Your task to perform on an android device: open a bookmark in the chrome app Image 0: 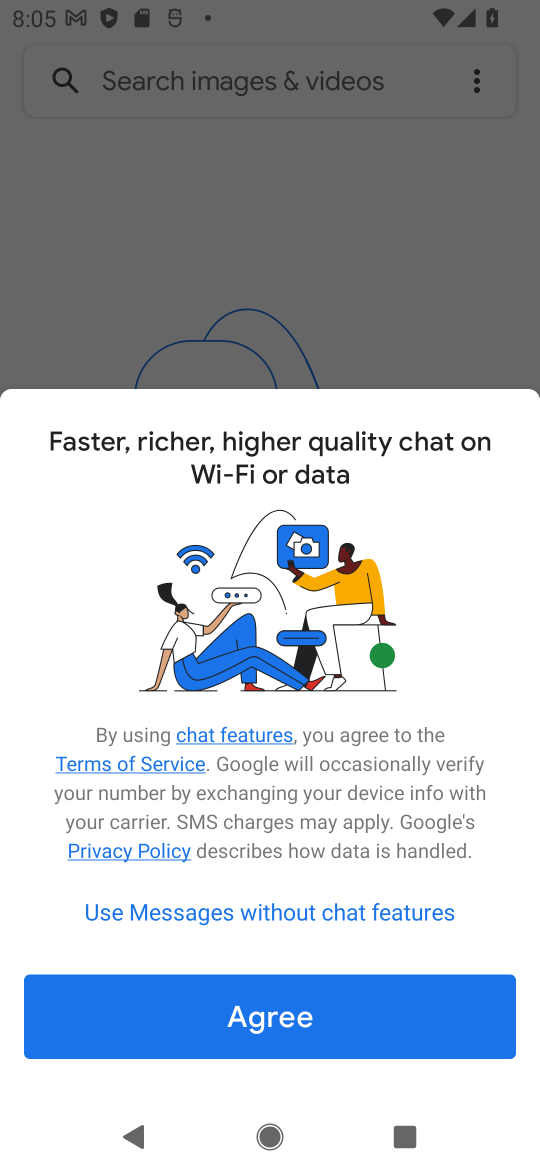
Step 0: press home button
Your task to perform on an android device: open a bookmark in the chrome app Image 1: 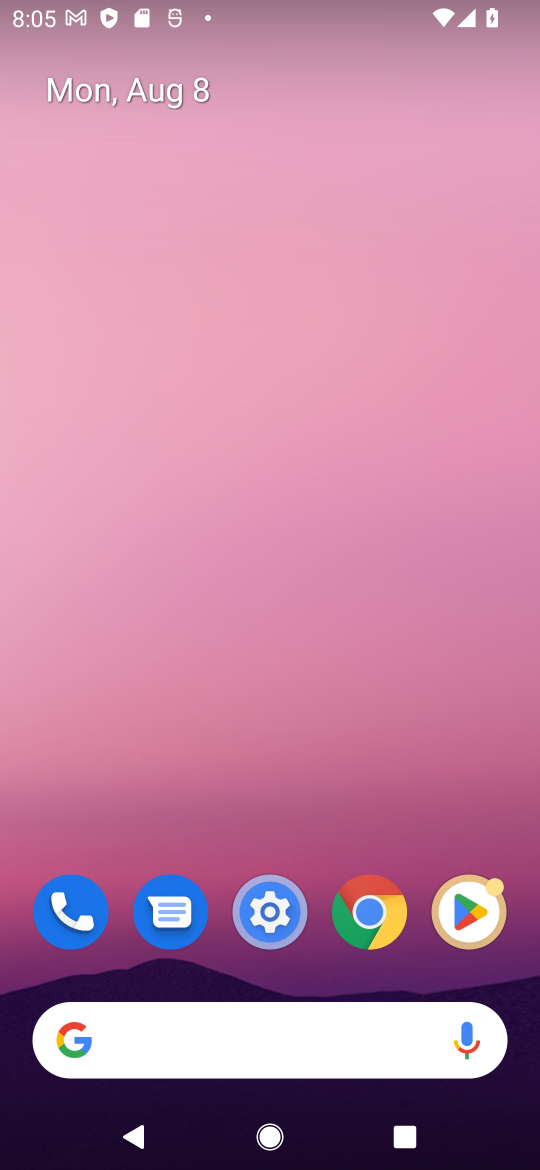
Step 1: drag from (435, 812) to (258, 15)
Your task to perform on an android device: open a bookmark in the chrome app Image 2: 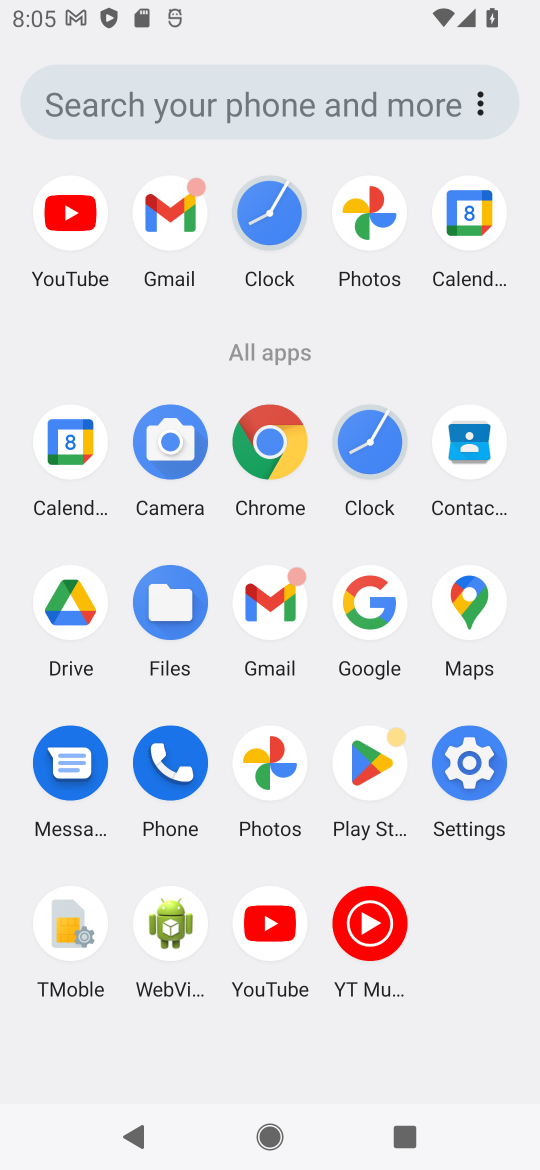
Step 2: click (272, 428)
Your task to perform on an android device: open a bookmark in the chrome app Image 3: 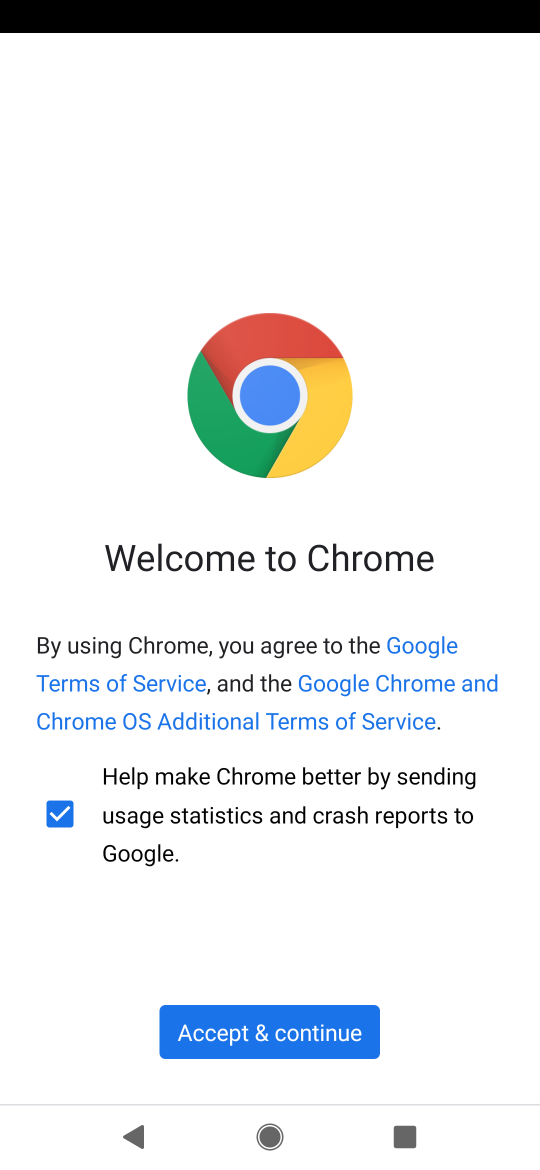
Step 3: click (281, 1029)
Your task to perform on an android device: open a bookmark in the chrome app Image 4: 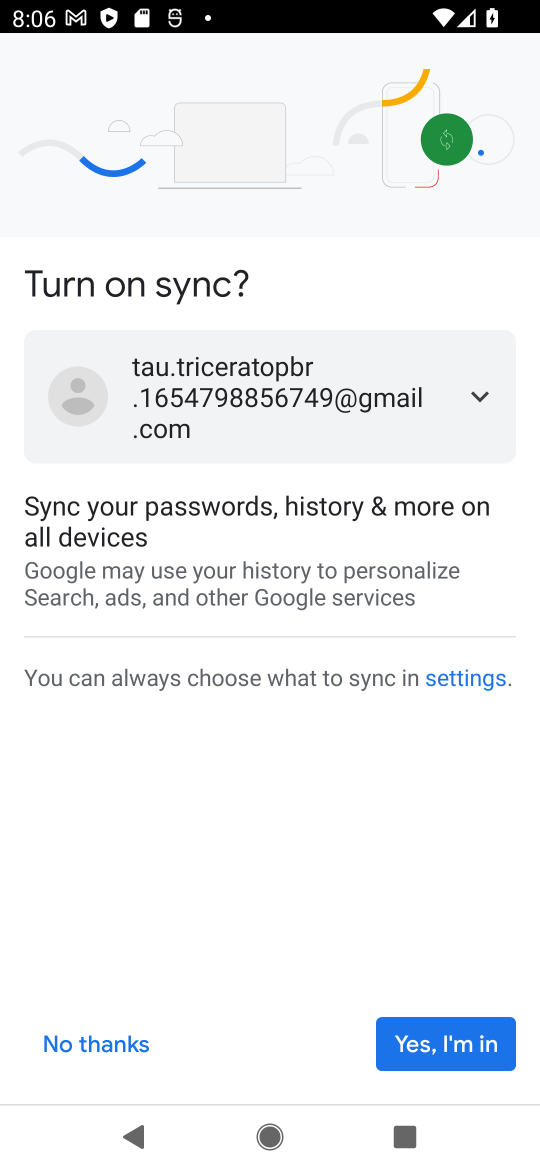
Step 4: click (421, 1034)
Your task to perform on an android device: open a bookmark in the chrome app Image 5: 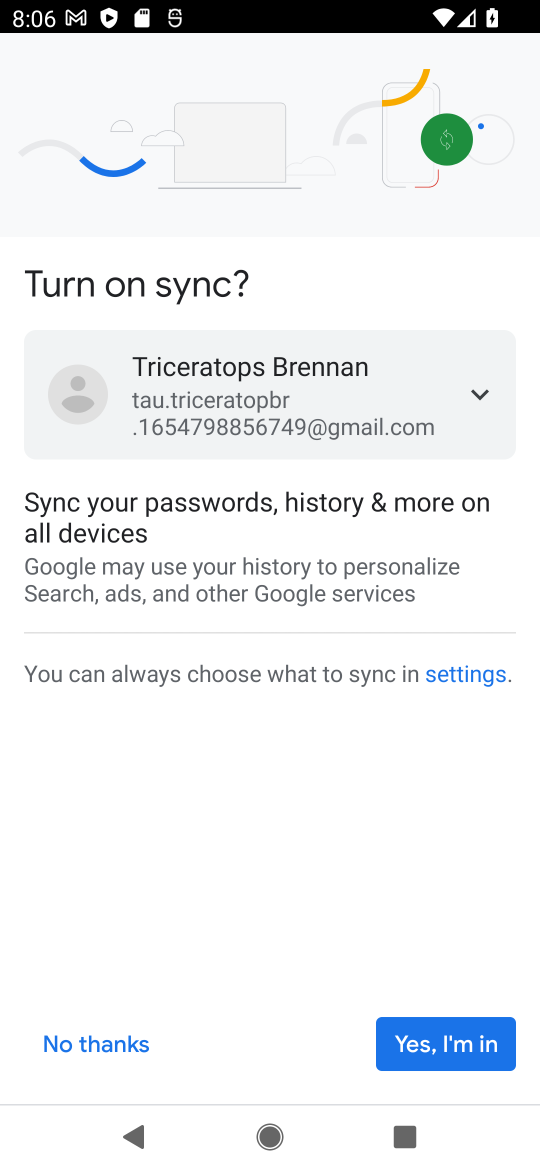
Step 5: click (441, 1047)
Your task to perform on an android device: open a bookmark in the chrome app Image 6: 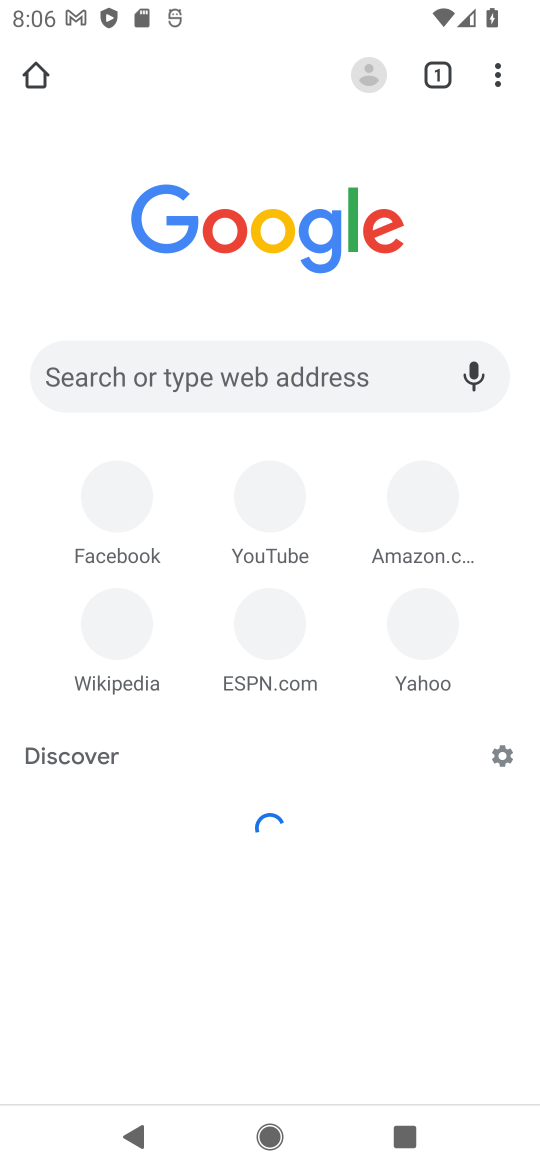
Step 6: click (241, 384)
Your task to perform on an android device: open a bookmark in the chrome app Image 7: 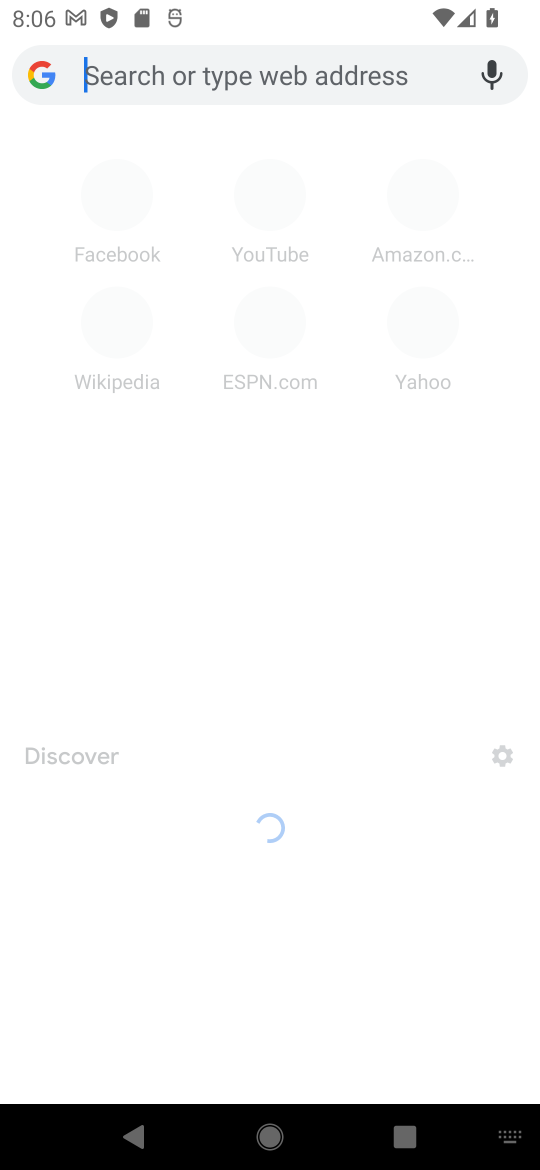
Step 7: press back button
Your task to perform on an android device: open a bookmark in the chrome app Image 8: 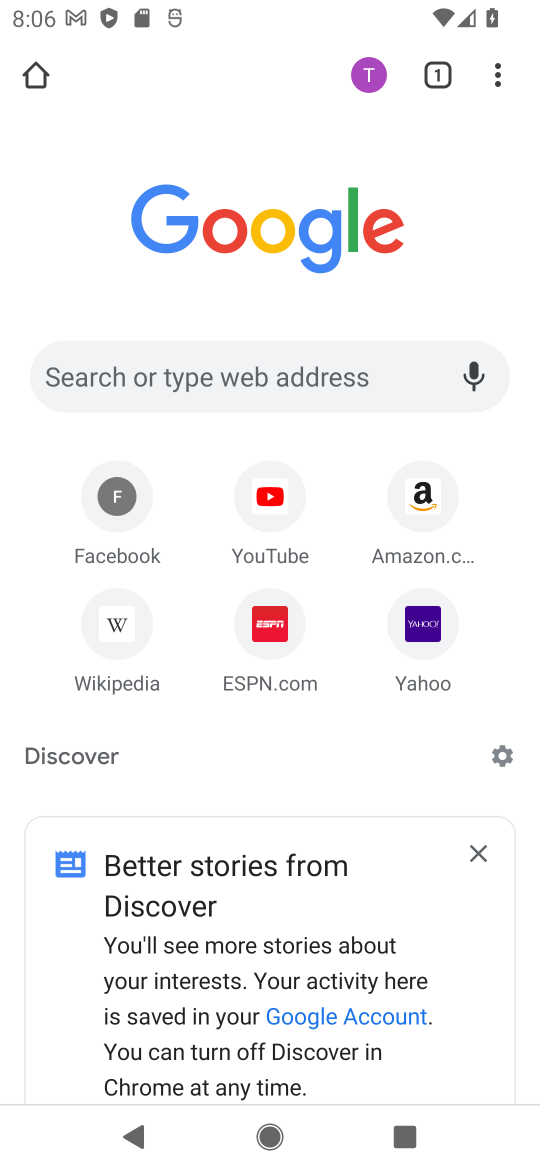
Step 8: click (496, 67)
Your task to perform on an android device: open a bookmark in the chrome app Image 9: 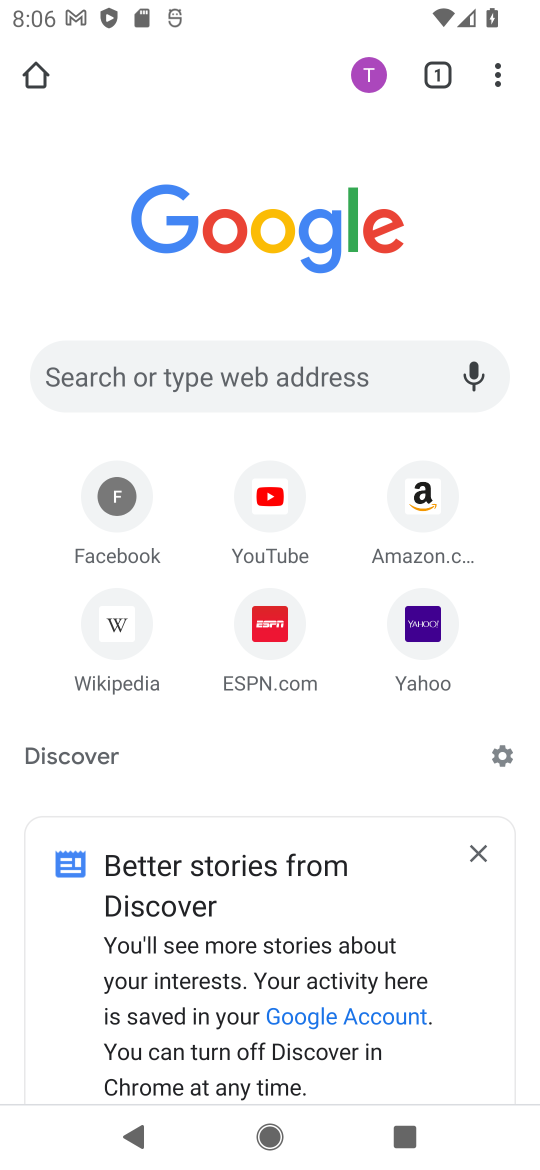
Step 9: click (493, 72)
Your task to perform on an android device: open a bookmark in the chrome app Image 10: 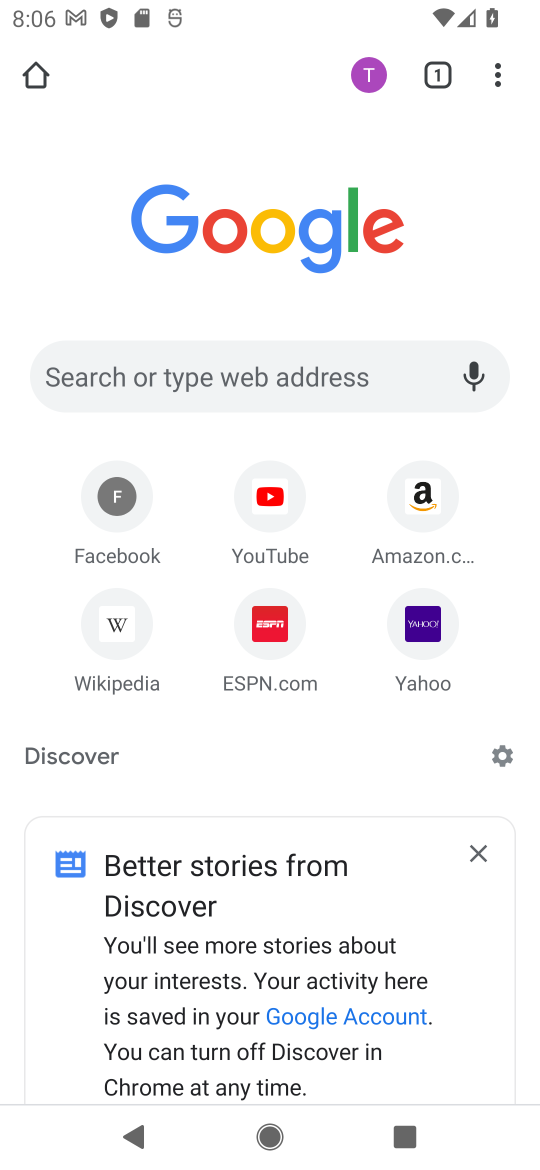
Step 10: click (493, 72)
Your task to perform on an android device: open a bookmark in the chrome app Image 11: 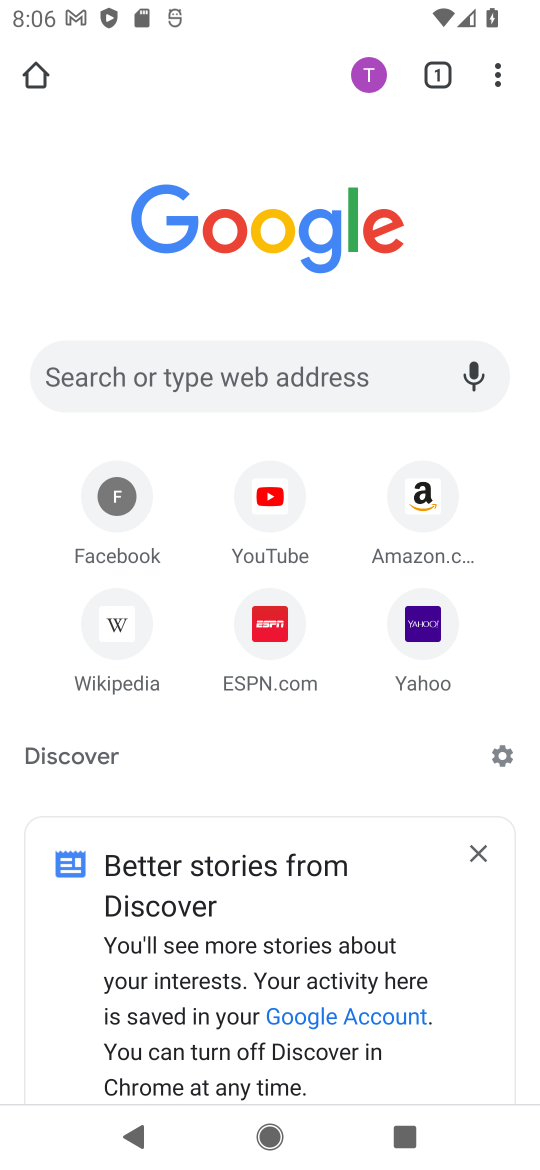
Step 11: click (504, 69)
Your task to perform on an android device: open a bookmark in the chrome app Image 12: 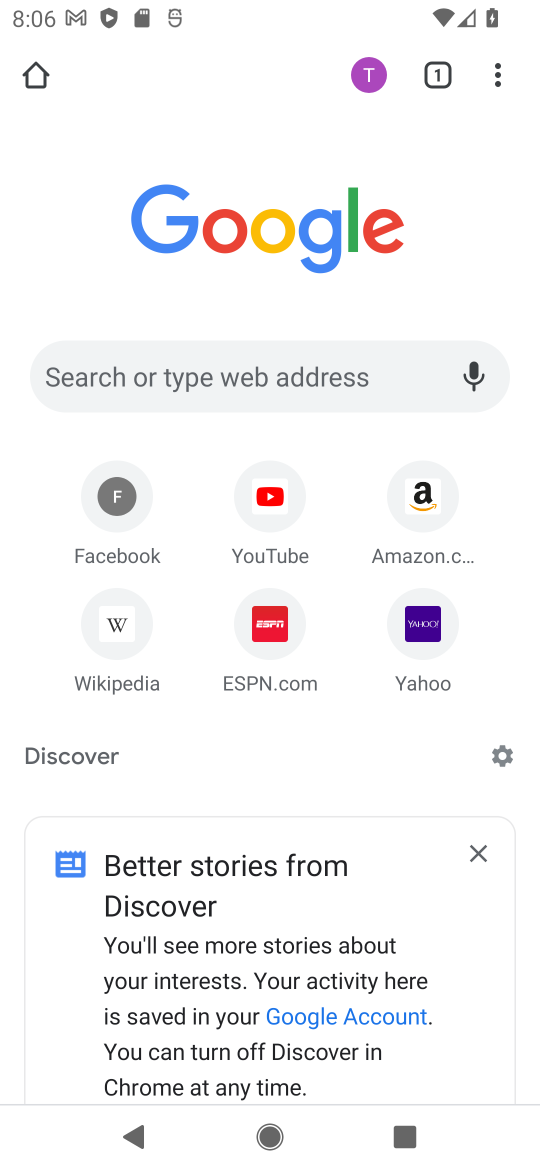
Step 12: click (504, 69)
Your task to perform on an android device: open a bookmark in the chrome app Image 13: 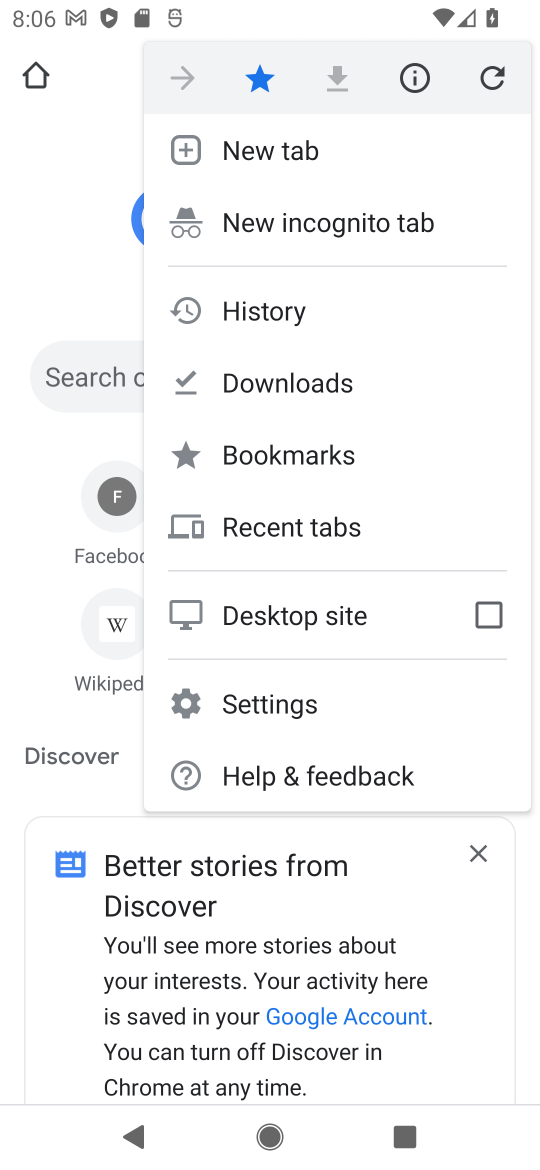
Step 13: click (276, 440)
Your task to perform on an android device: open a bookmark in the chrome app Image 14: 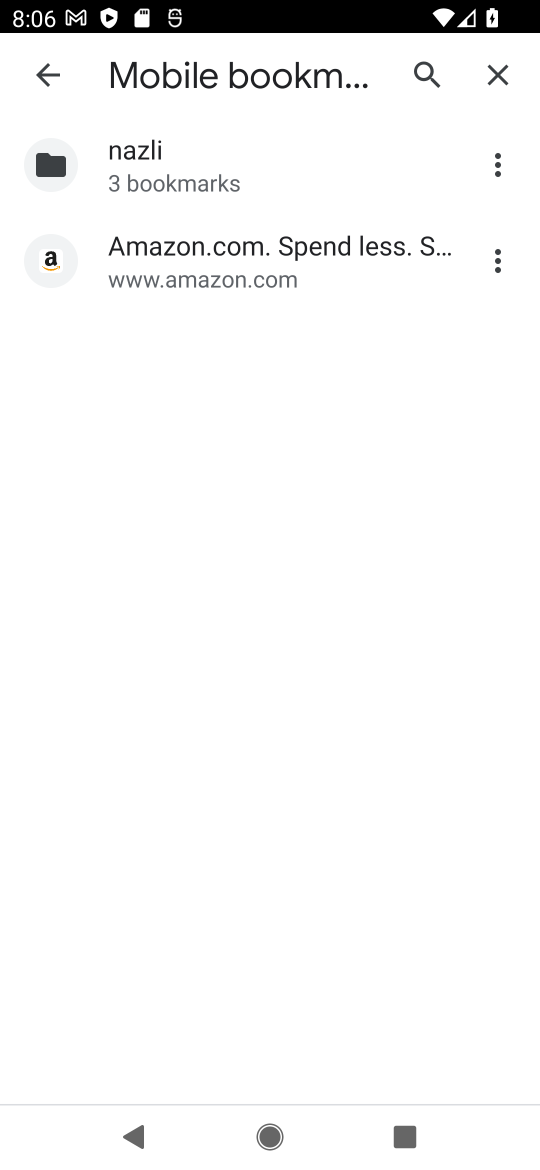
Step 14: task complete